Your task to perform on an android device: turn off sleep mode Image 0: 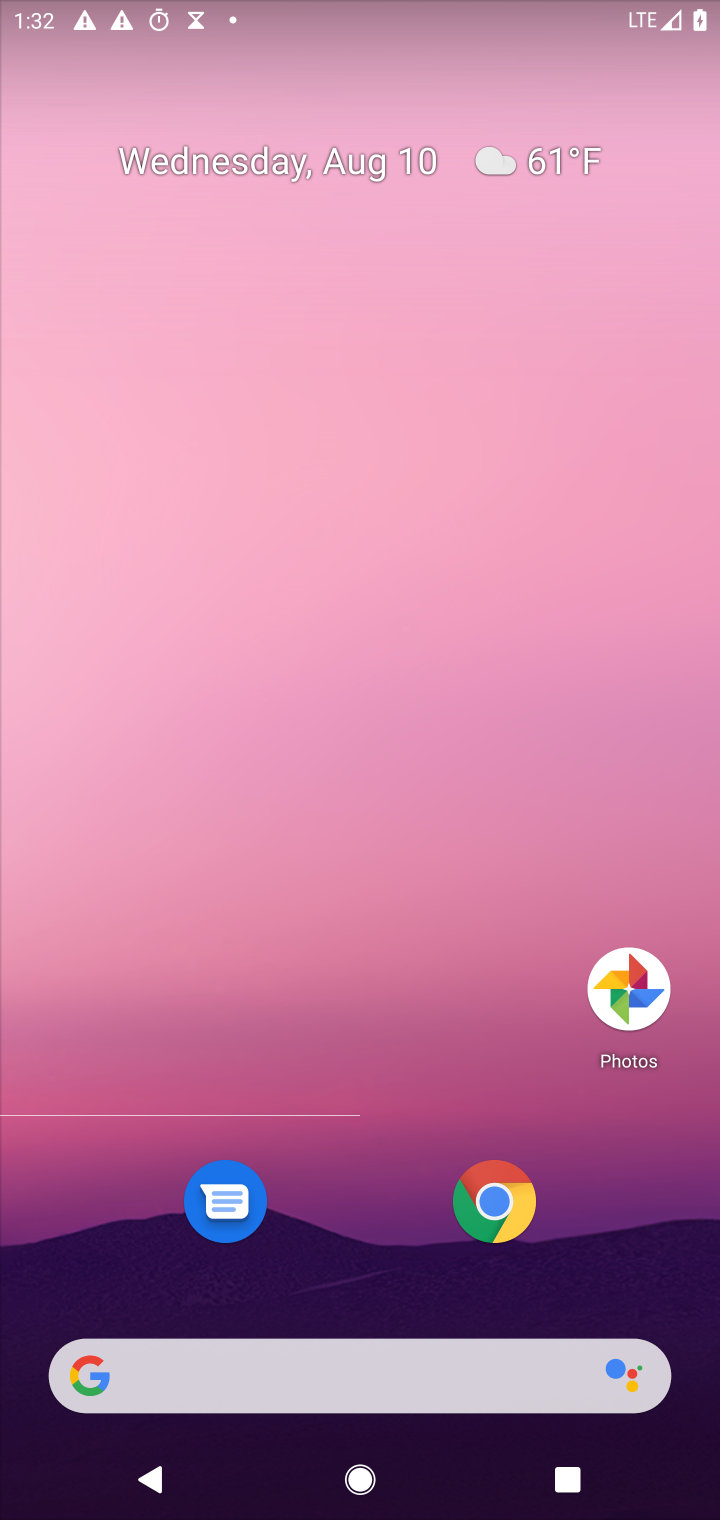
Step 0: press home button
Your task to perform on an android device: turn off sleep mode Image 1: 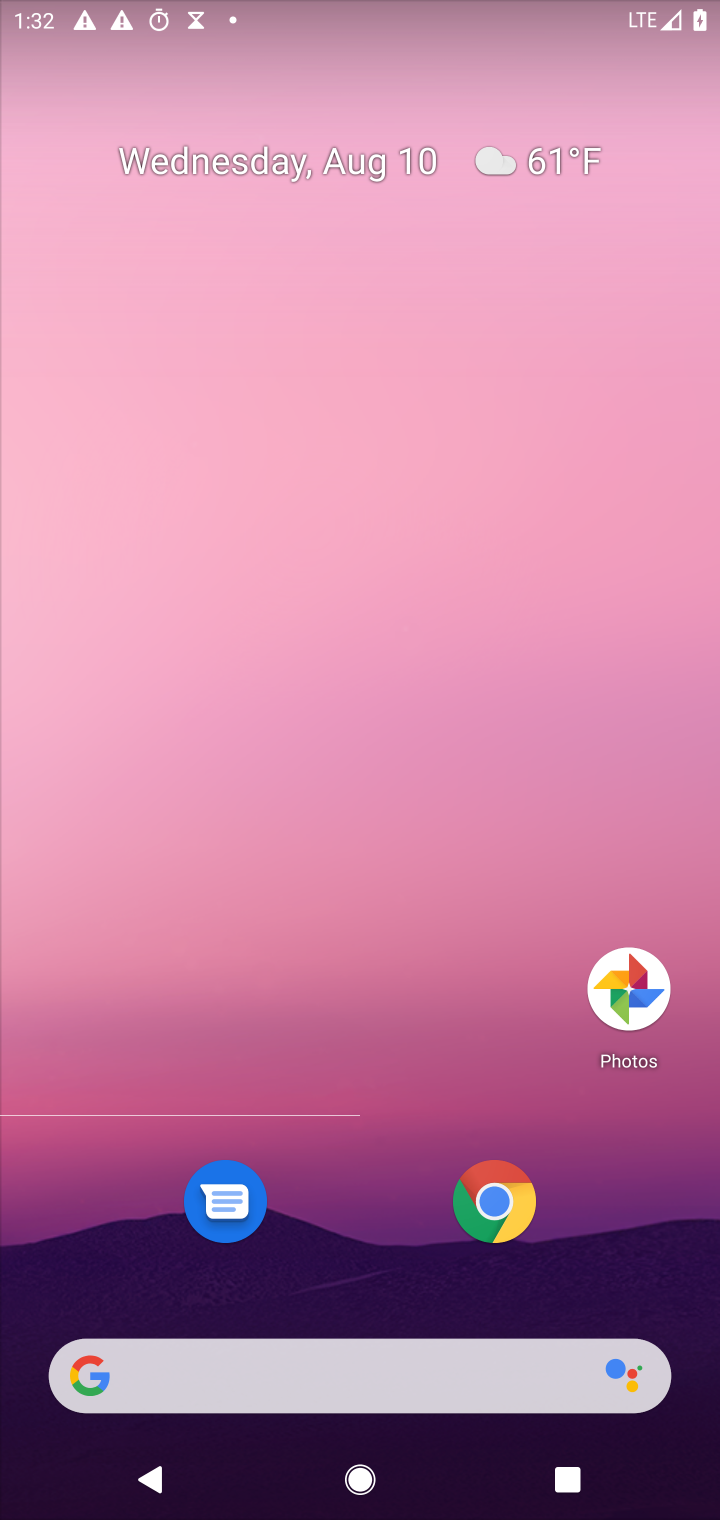
Step 1: drag from (385, 1086) to (392, 82)
Your task to perform on an android device: turn off sleep mode Image 2: 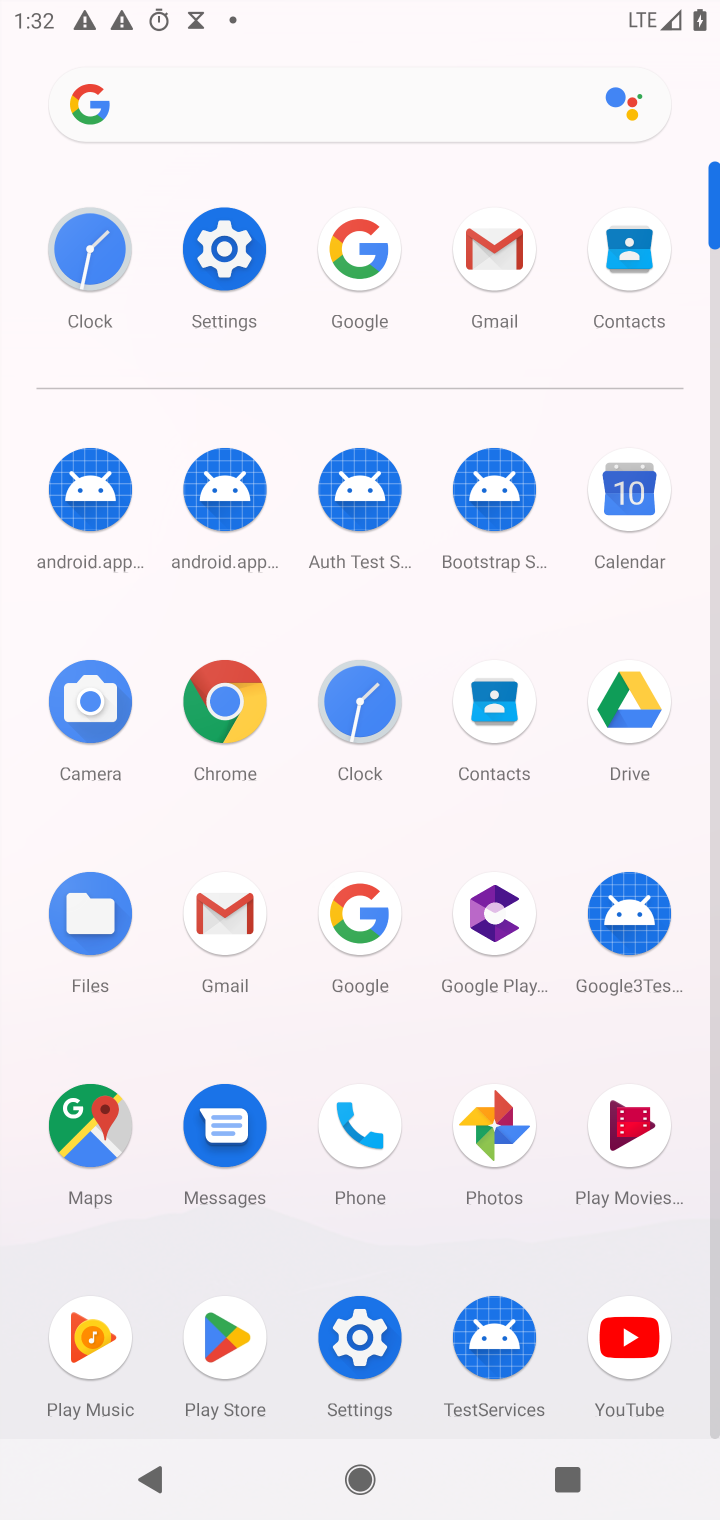
Step 2: click (232, 270)
Your task to perform on an android device: turn off sleep mode Image 3: 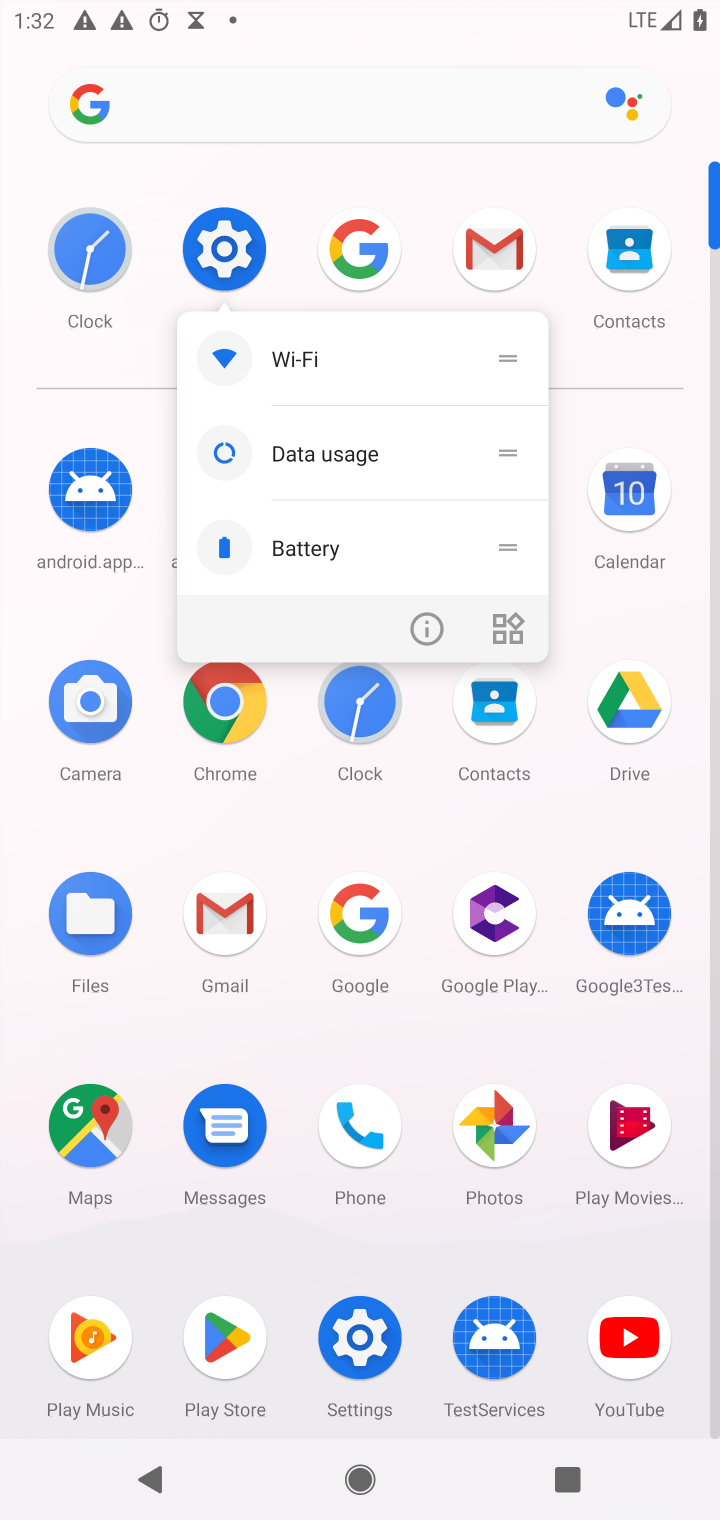
Step 3: click (201, 234)
Your task to perform on an android device: turn off sleep mode Image 4: 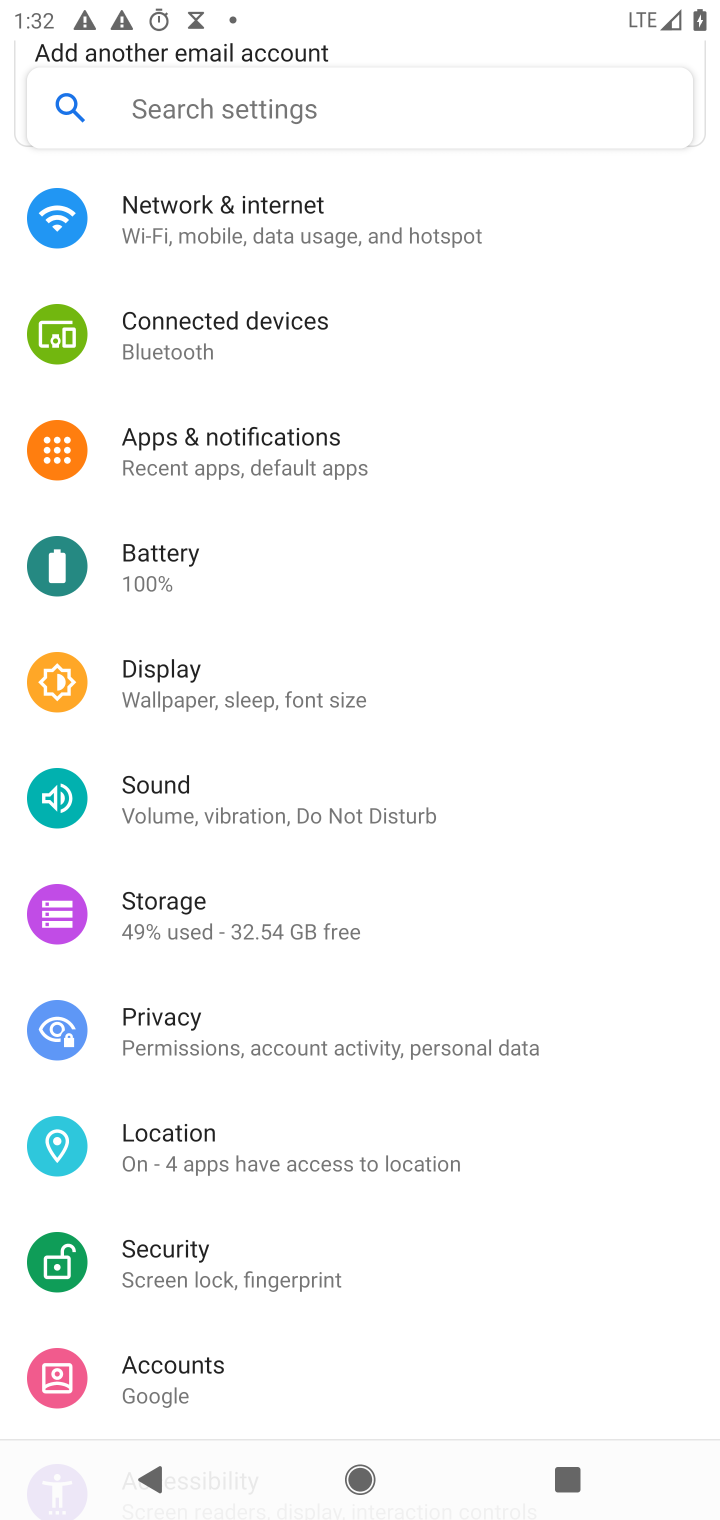
Step 4: click (198, 694)
Your task to perform on an android device: turn off sleep mode Image 5: 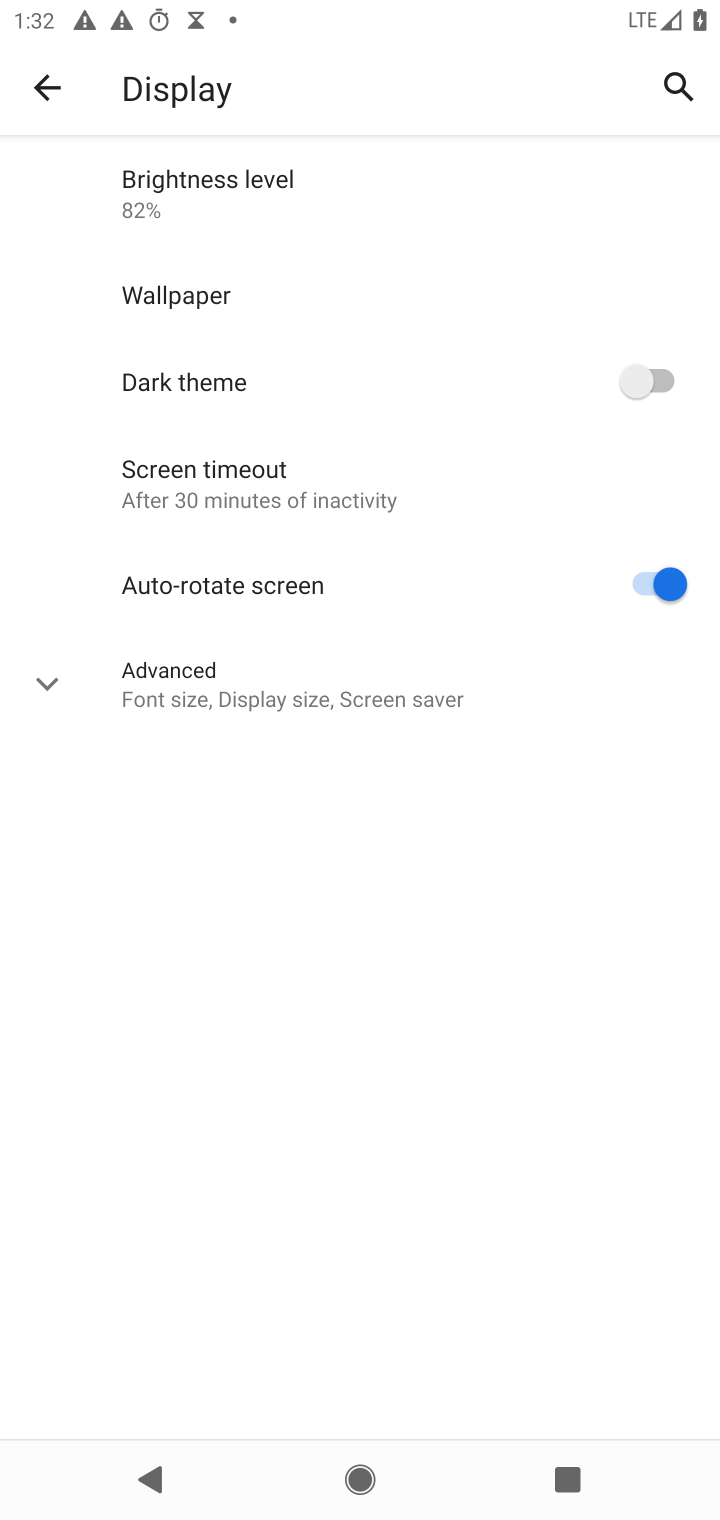
Step 5: click (46, 681)
Your task to perform on an android device: turn off sleep mode Image 6: 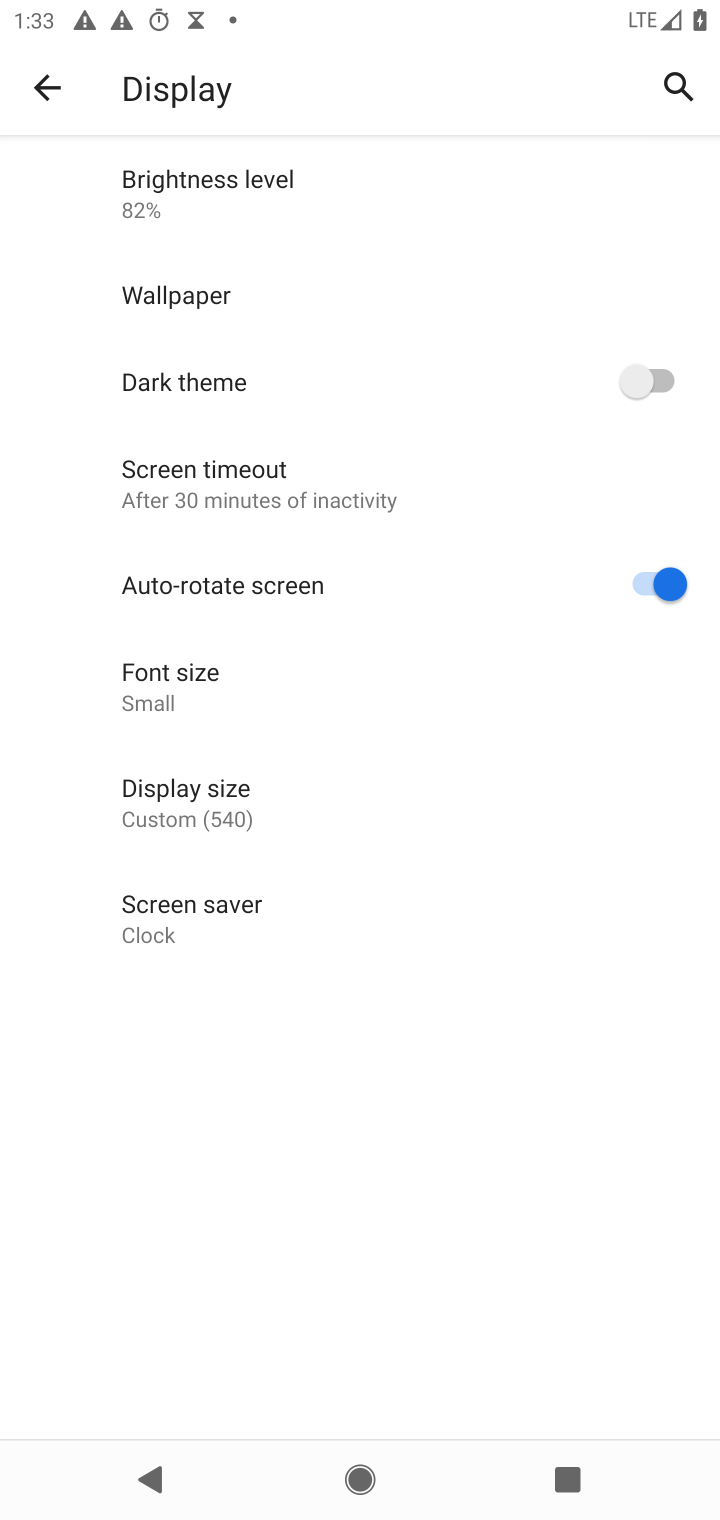
Step 6: task complete